Your task to perform on an android device: Open Wikipedia Image 0: 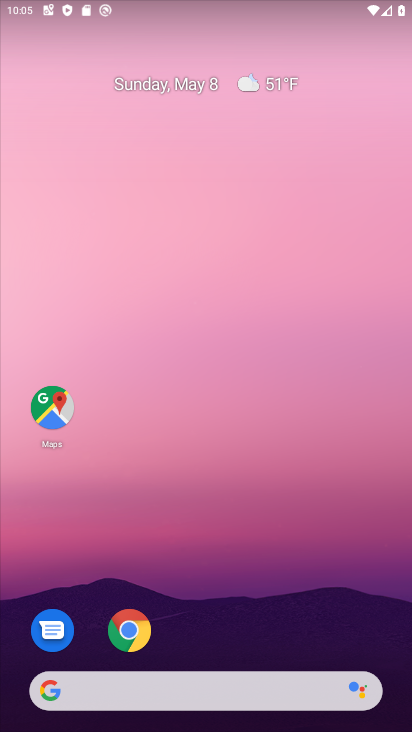
Step 0: drag from (319, 635) to (204, 32)
Your task to perform on an android device: Open Wikipedia Image 1: 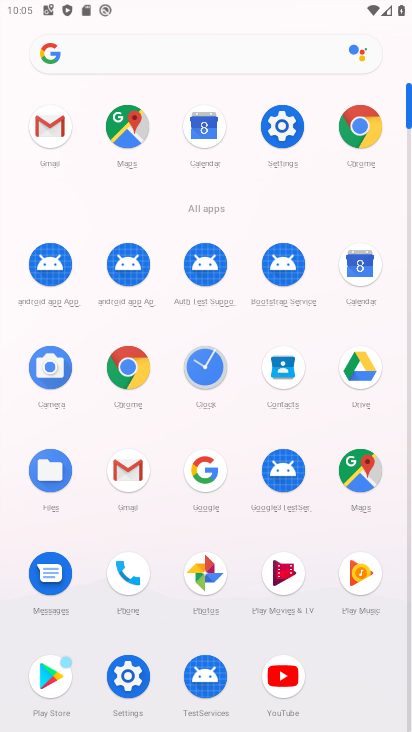
Step 1: click (344, 130)
Your task to perform on an android device: Open Wikipedia Image 2: 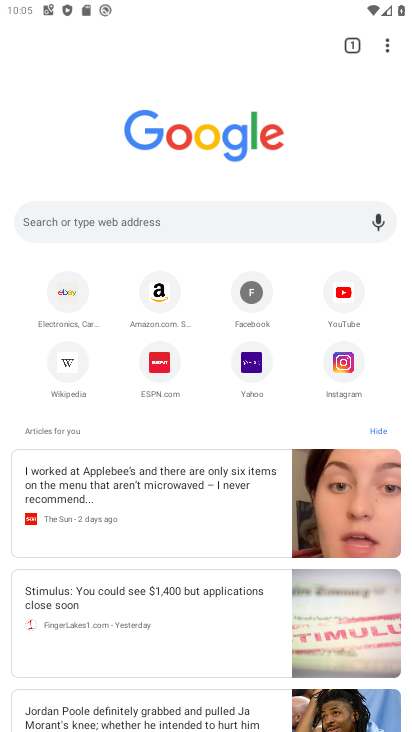
Step 2: click (174, 235)
Your task to perform on an android device: Open Wikipedia Image 3: 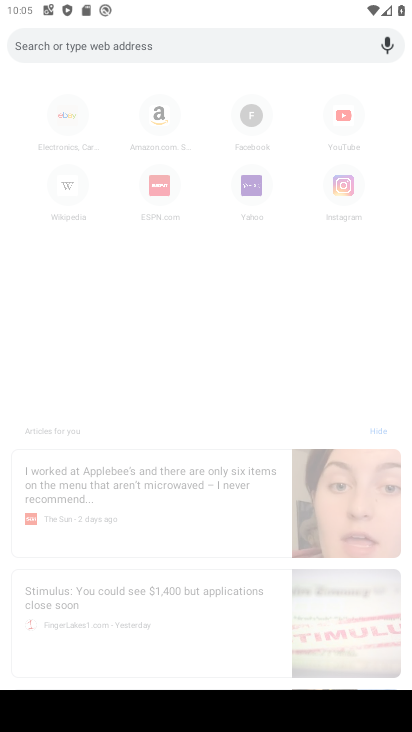
Step 3: type "wikipedia"
Your task to perform on an android device: Open Wikipedia Image 4: 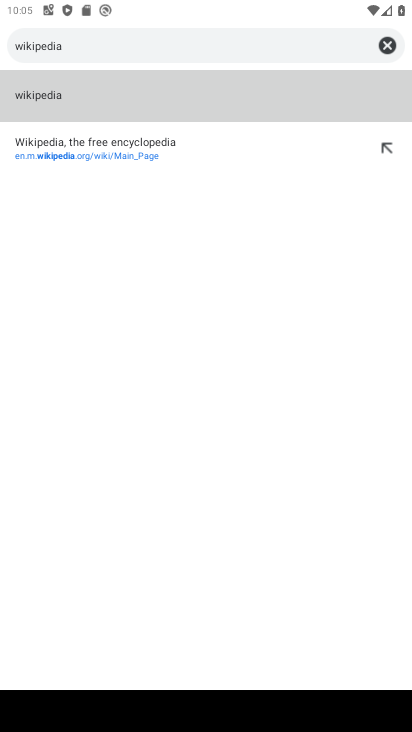
Step 4: click (228, 108)
Your task to perform on an android device: Open Wikipedia Image 5: 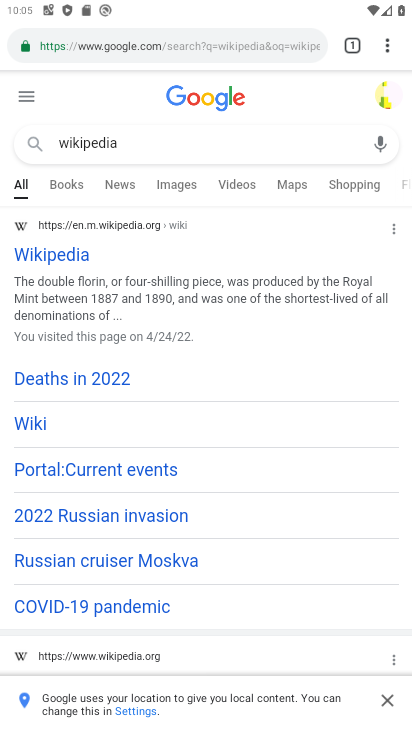
Step 5: task complete